Your task to perform on an android device: Open Chrome and go to the settings page Image 0: 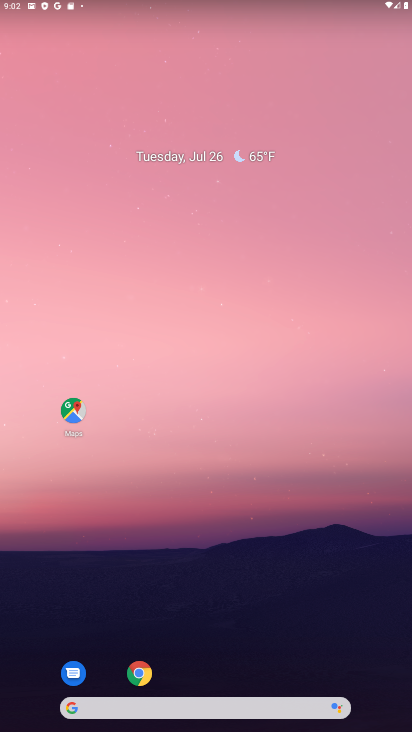
Step 0: click (141, 673)
Your task to perform on an android device: Open Chrome and go to the settings page Image 1: 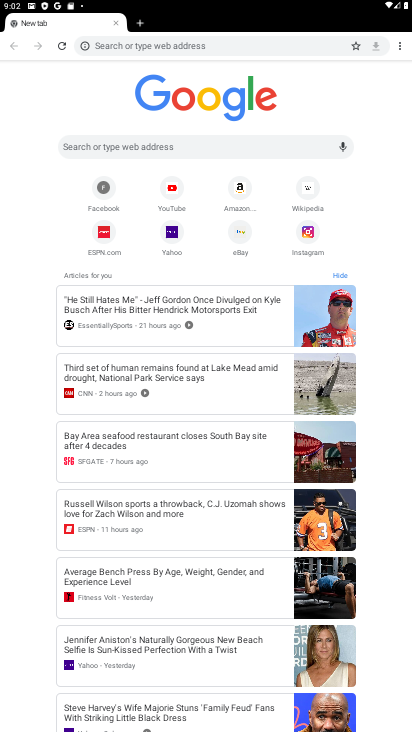
Step 1: click (399, 49)
Your task to perform on an android device: Open Chrome and go to the settings page Image 2: 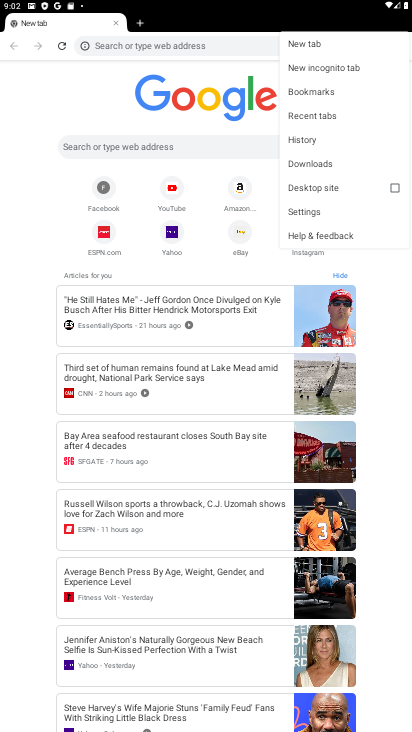
Step 2: click (296, 208)
Your task to perform on an android device: Open Chrome and go to the settings page Image 3: 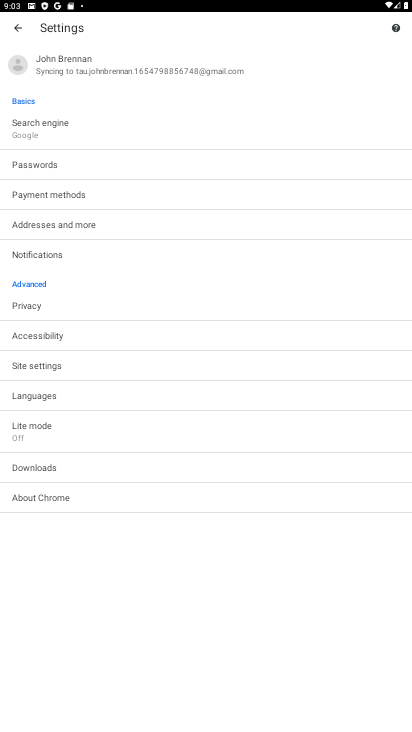
Step 3: task complete